Your task to perform on an android device: change the clock display to show seconds Image 0: 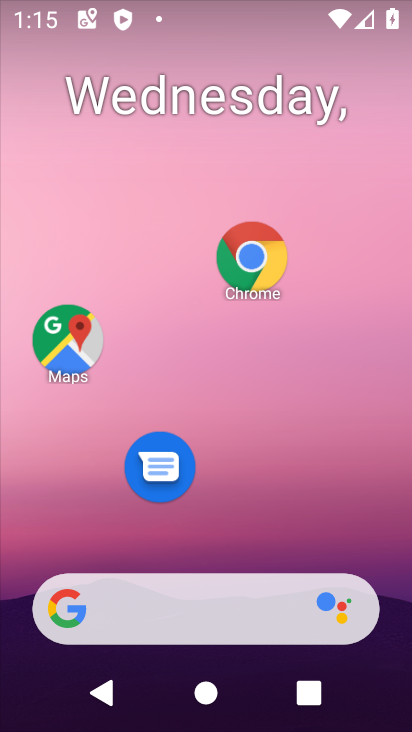
Step 0: drag from (370, 517) to (309, 103)
Your task to perform on an android device: change the clock display to show seconds Image 1: 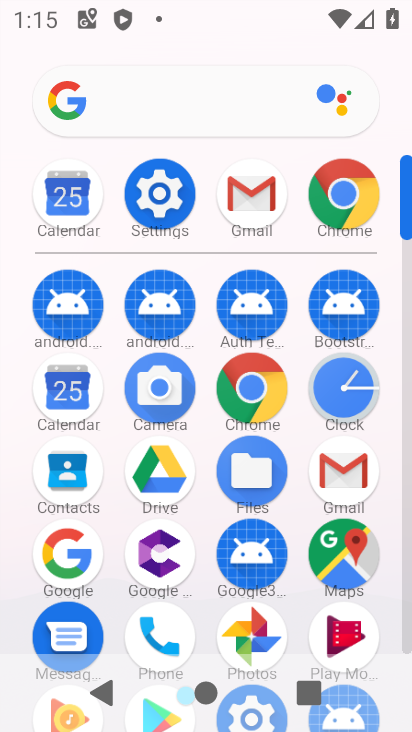
Step 1: click (403, 649)
Your task to perform on an android device: change the clock display to show seconds Image 2: 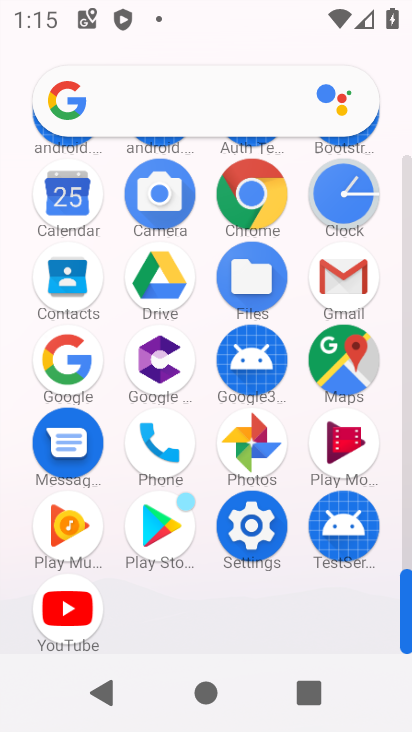
Step 2: click (334, 211)
Your task to perform on an android device: change the clock display to show seconds Image 3: 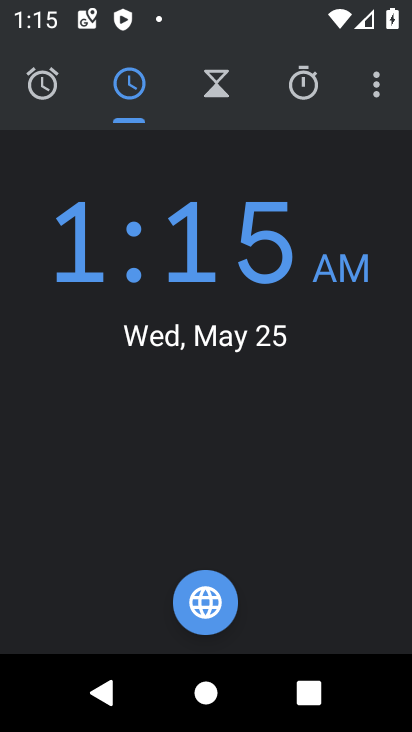
Step 3: click (376, 81)
Your task to perform on an android device: change the clock display to show seconds Image 4: 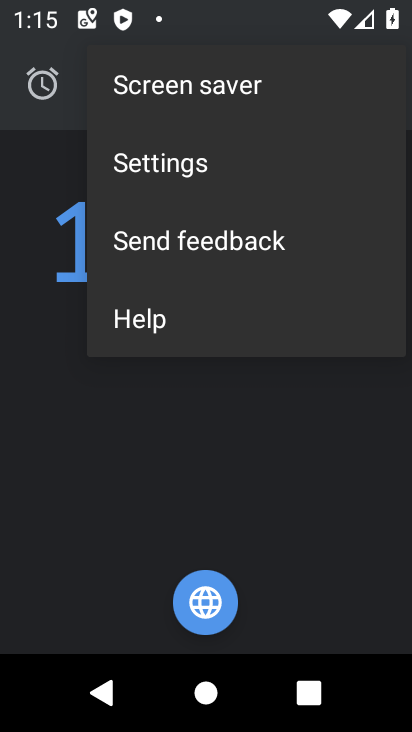
Step 4: click (171, 153)
Your task to perform on an android device: change the clock display to show seconds Image 5: 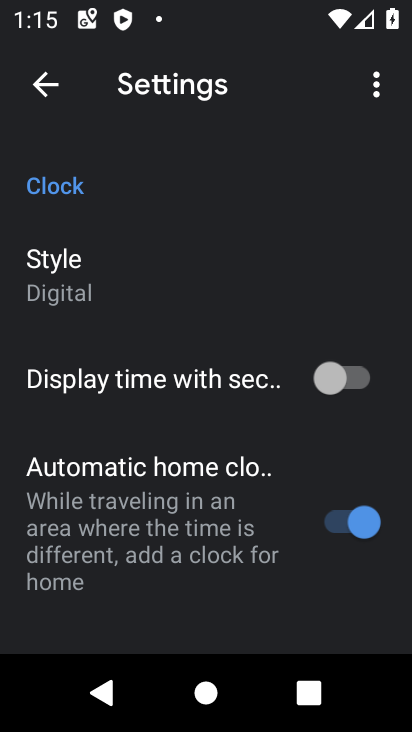
Step 5: click (214, 397)
Your task to perform on an android device: change the clock display to show seconds Image 6: 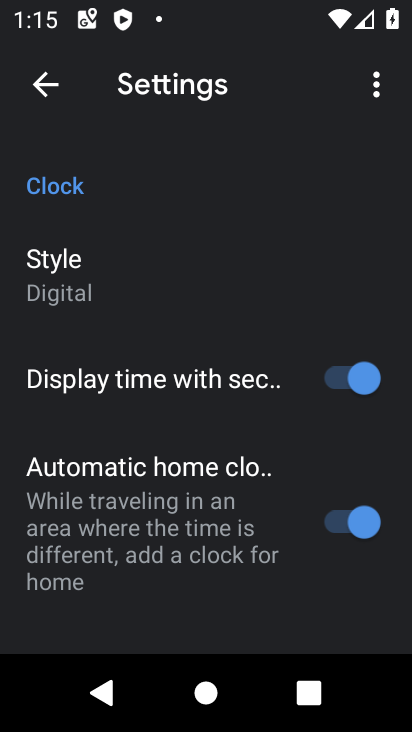
Step 6: task complete